Your task to perform on an android device: turn on javascript in the chrome app Image 0: 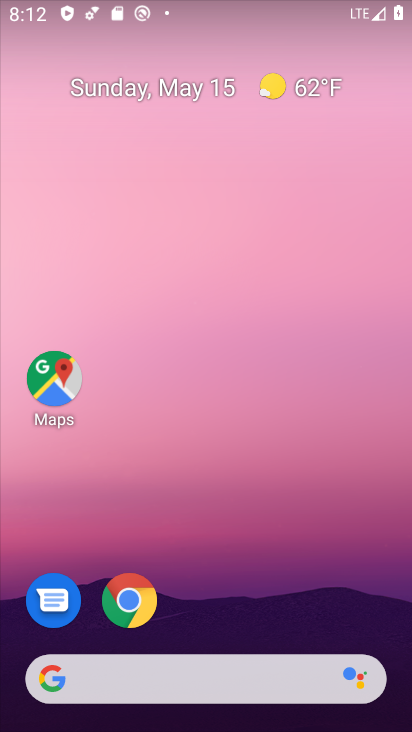
Step 0: drag from (196, 434) to (135, 210)
Your task to perform on an android device: turn on javascript in the chrome app Image 1: 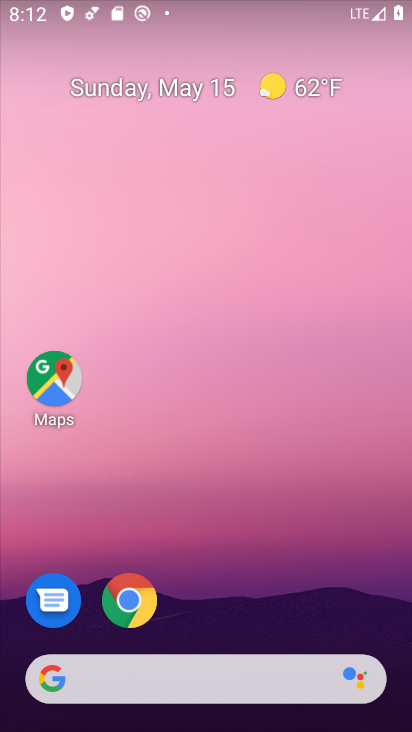
Step 1: click (113, 593)
Your task to perform on an android device: turn on javascript in the chrome app Image 2: 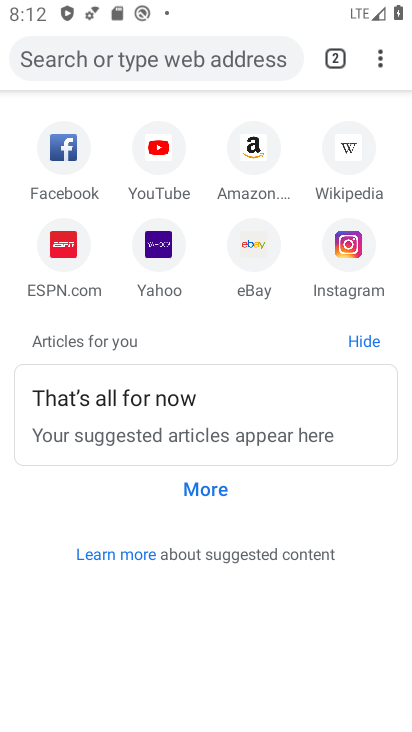
Step 2: click (382, 57)
Your task to perform on an android device: turn on javascript in the chrome app Image 3: 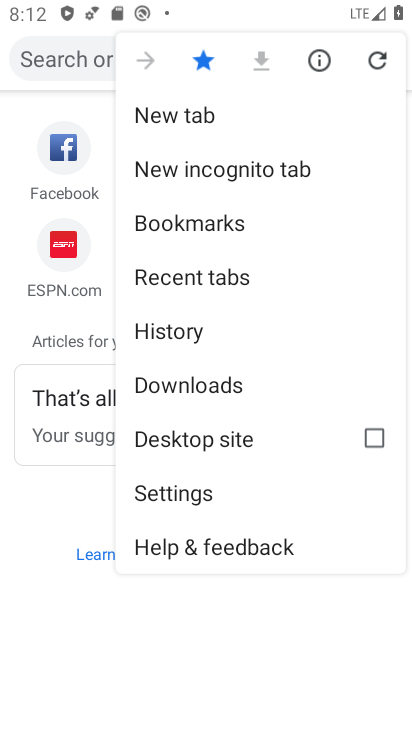
Step 3: click (170, 490)
Your task to perform on an android device: turn on javascript in the chrome app Image 4: 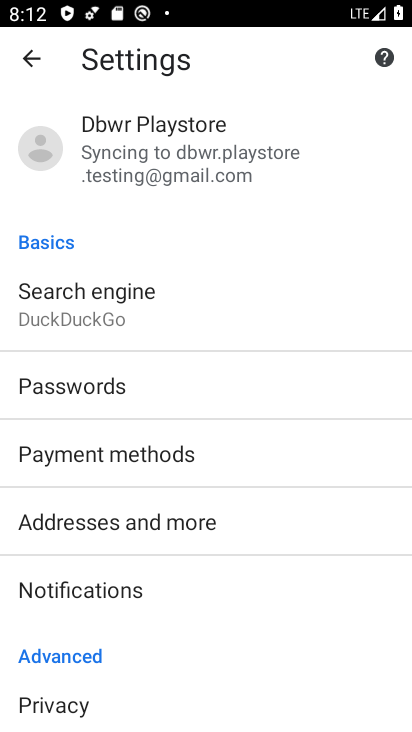
Step 4: drag from (188, 676) to (175, 232)
Your task to perform on an android device: turn on javascript in the chrome app Image 5: 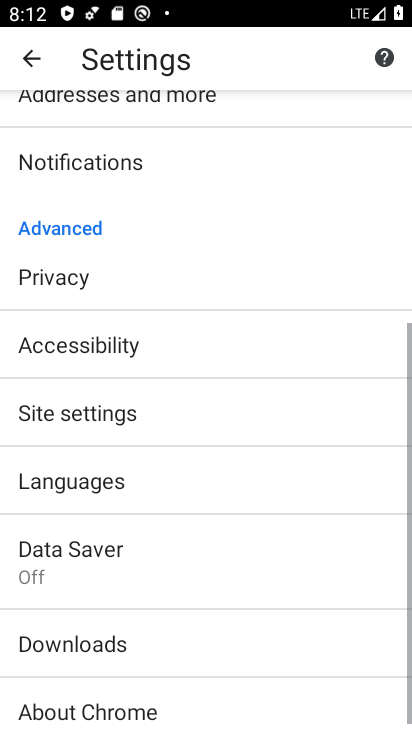
Step 5: click (174, 221)
Your task to perform on an android device: turn on javascript in the chrome app Image 6: 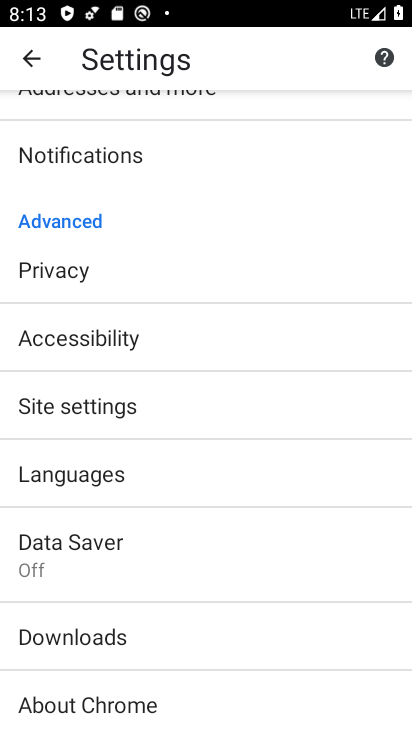
Step 6: click (88, 419)
Your task to perform on an android device: turn on javascript in the chrome app Image 7: 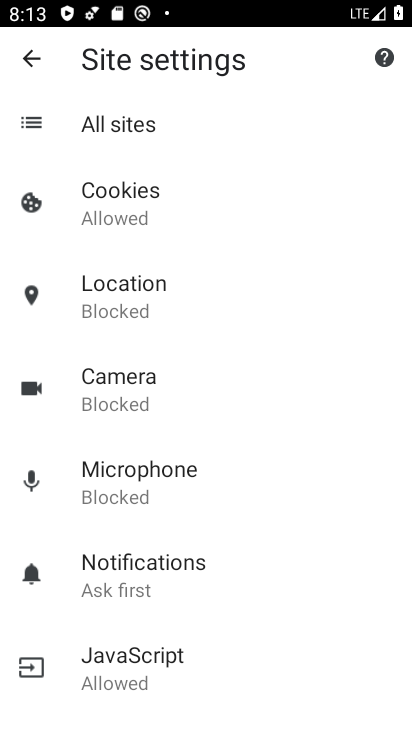
Step 7: click (121, 682)
Your task to perform on an android device: turn on javascript in the chrome app Image 8: 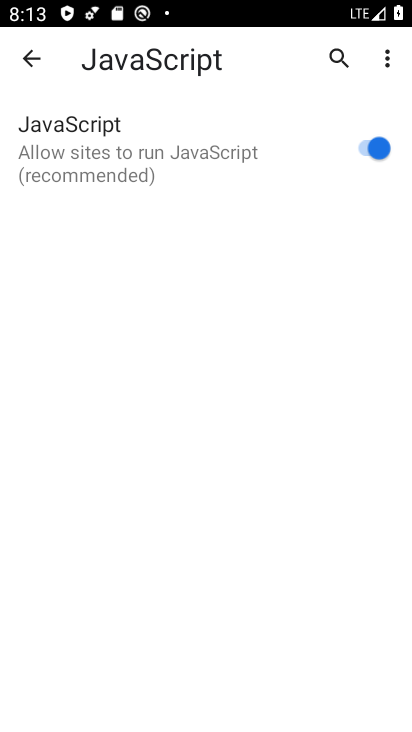
Step 8: task complete